Your task to perform on an android device: open the mobile data screen to see how much data has been used Image 0: 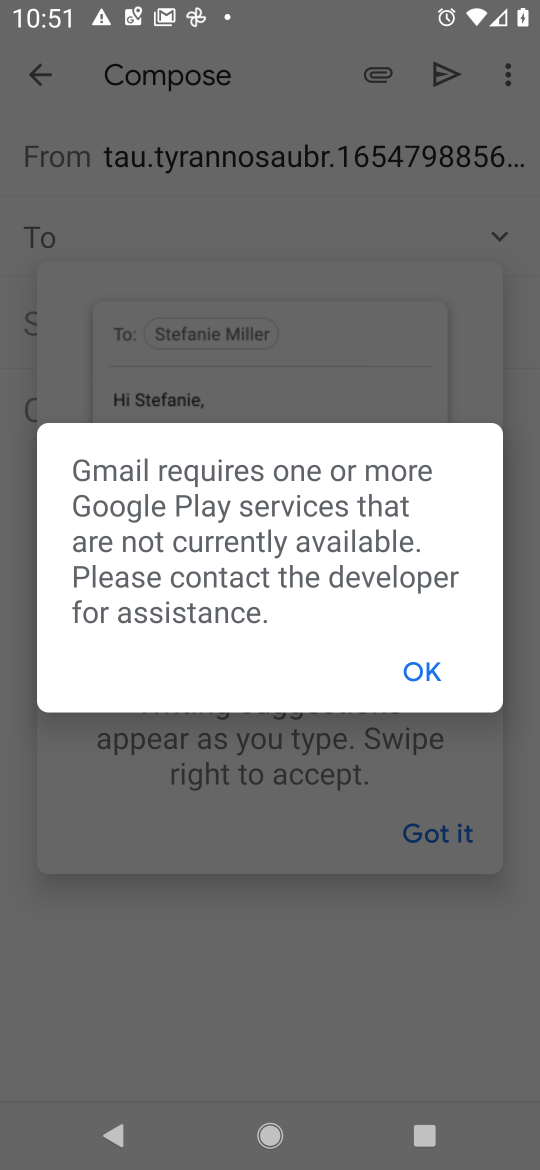
Step 0: press home button
Your task to perform on an android device: open the mobile data screen to see how much data has been used Image 1: 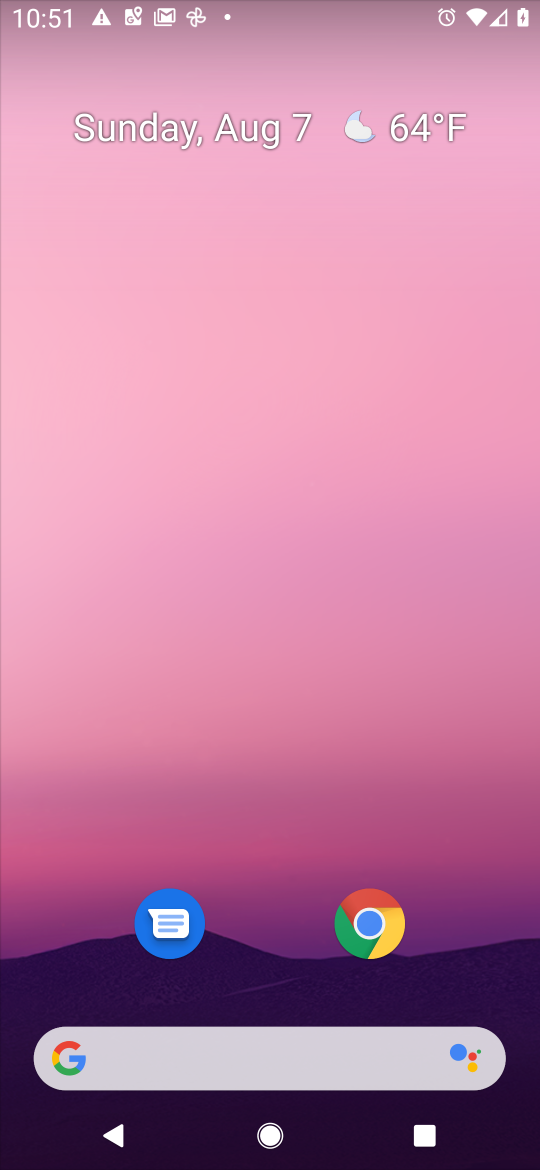
Step 1: drag from (478, 853) to (278, 13)
Your task to perform on an android device: open the mobile data screen to see how much data has been used Image 2: 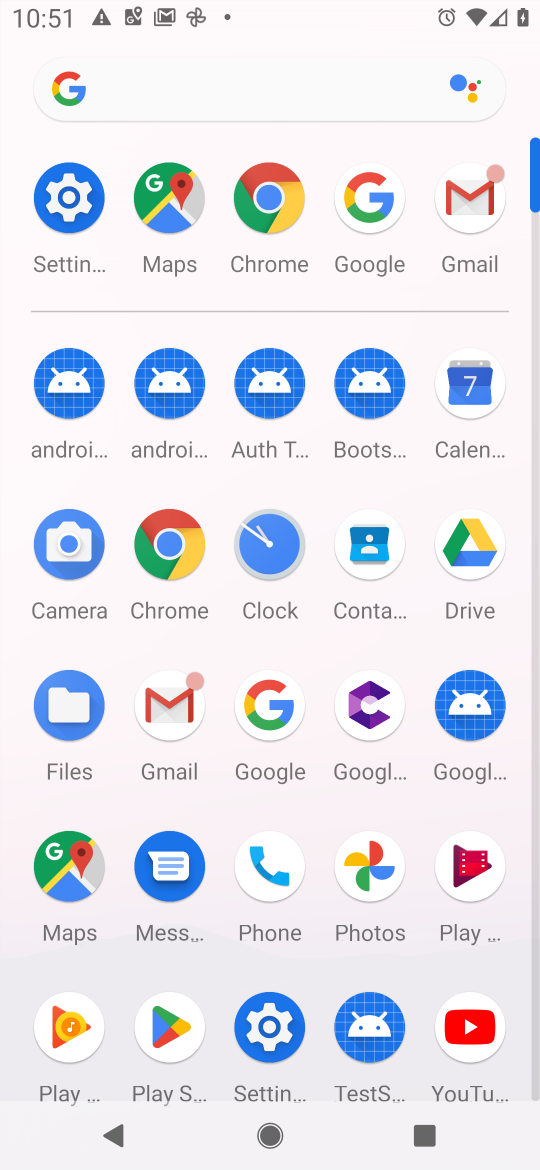
Step 2: click (54, 171)
Your task to perform on an android device: open the mobile data screen to see how much data has been used Image 3: 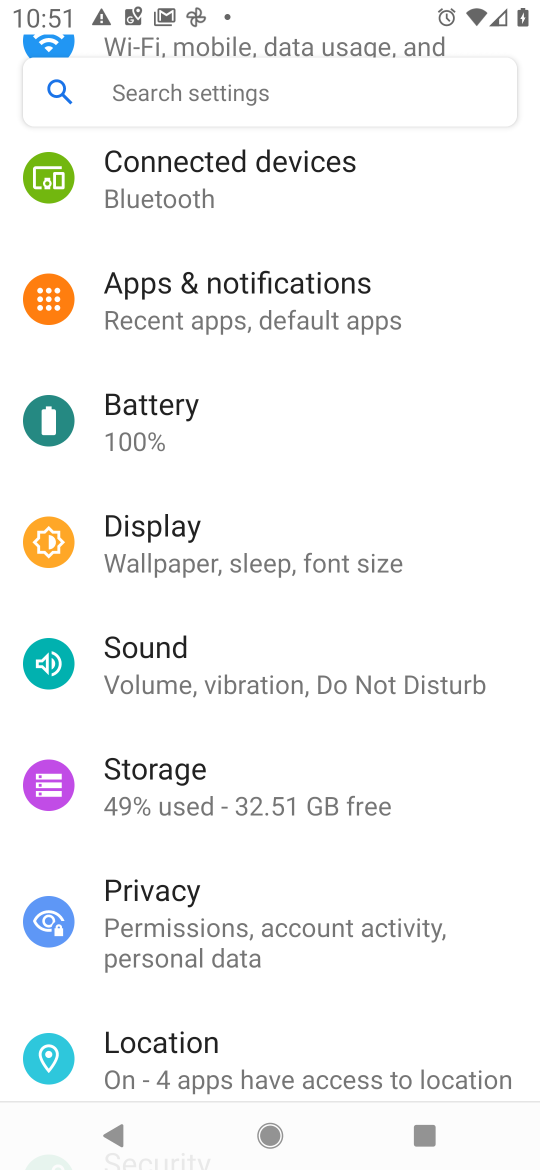
Step 3: drag from (198, 238) to (294, 1089)
Your task to perform on an android device: open the mobile data screen to see how much data has been used Image 4: 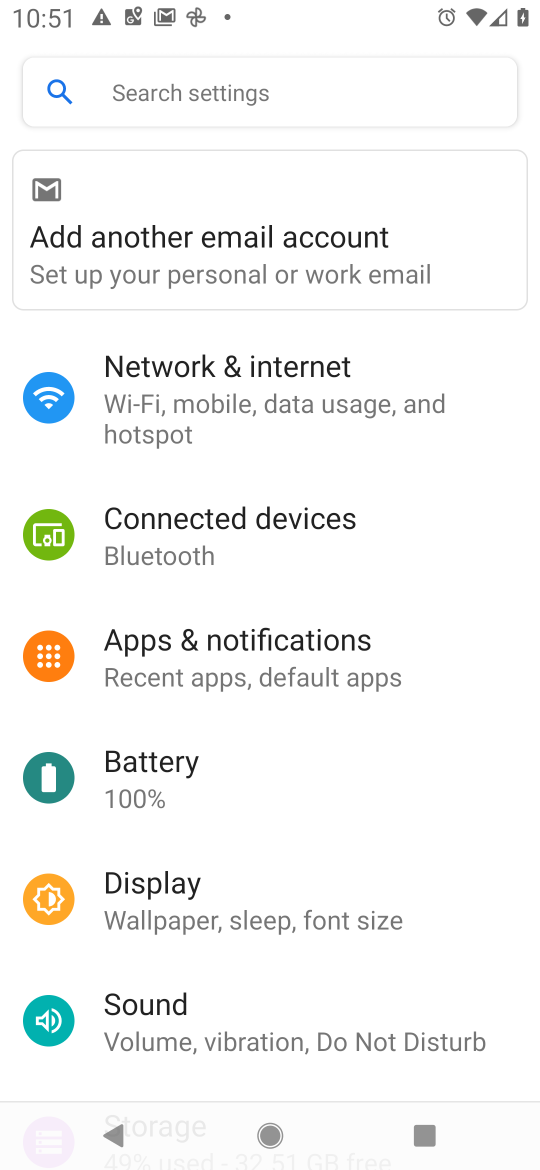
Step 4: click (208, 425)
Your task to perform on an android device: open the mobile data screen to see how much data has been used Image 5: 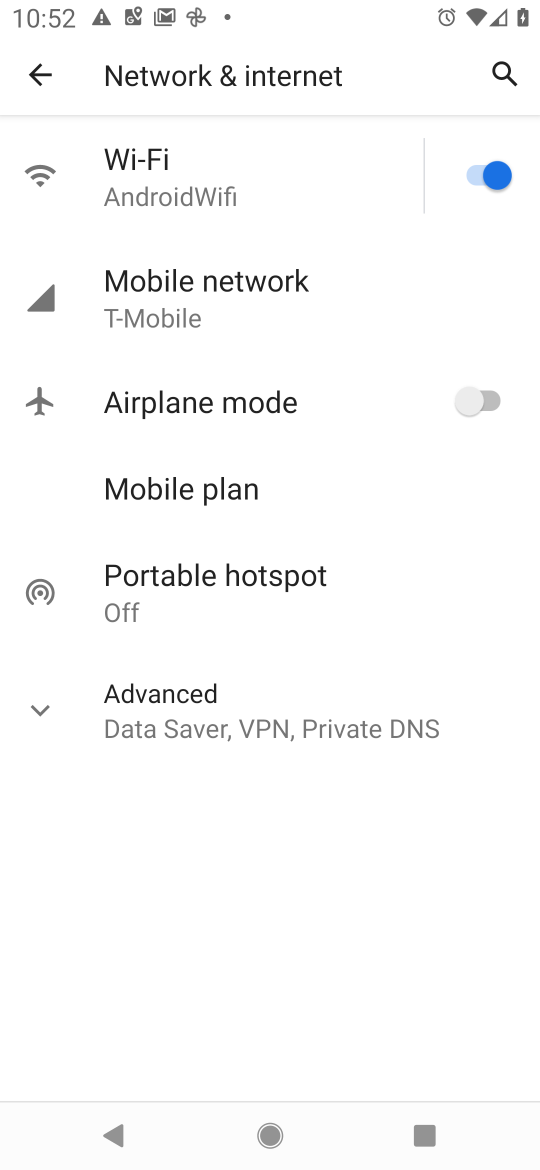
Step 5: click (229, 311)
Your task to perform on an android device: open the mobile data screen to see how much data has been used Image 6: 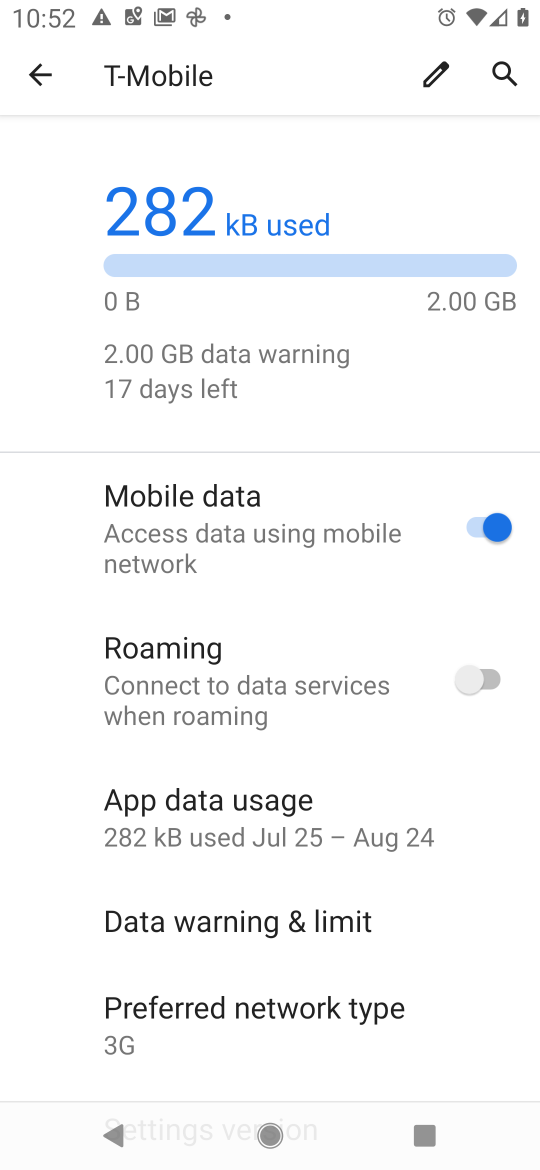
Step 6: click (200, 821)
Your task to perform on an android device: open the mobile data screen to see how much data has been used Image 7: 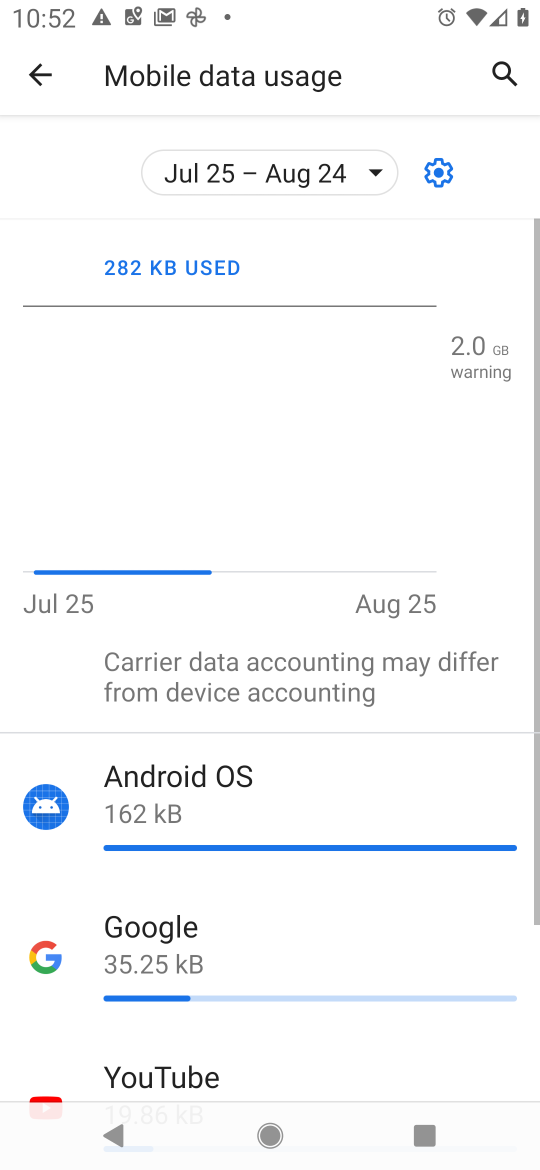
Step 7: task complete